Your task to perform on an android device: turn on improve location accuracy Image 0: 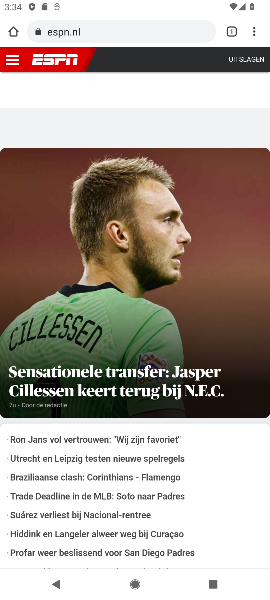
Step 0: press home button
Your task to perform on an android device: turn on improve location accuracy Image 1: 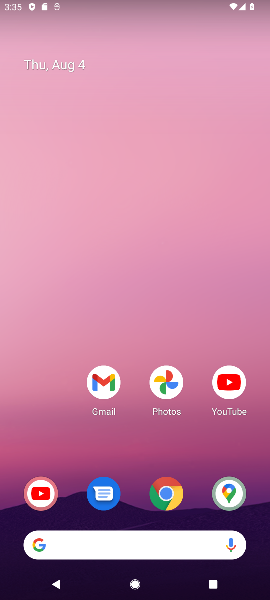
Step 1: drag from (107, 527) to (86, 241)
Your task to perform on an android device: turn on improve location accuracy Image 2: 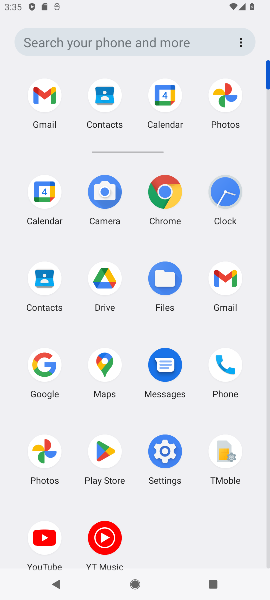
Step 2: click (171, 451)
Your task to perform on an android device: turn on improve location accuracy Image 3: 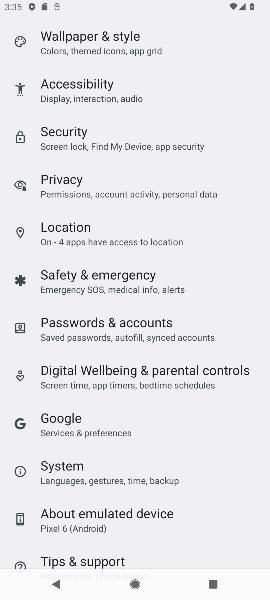
Step 3: click (50, 242)
Your task to perform on an android device: turn on improve location accuracy Image 4: 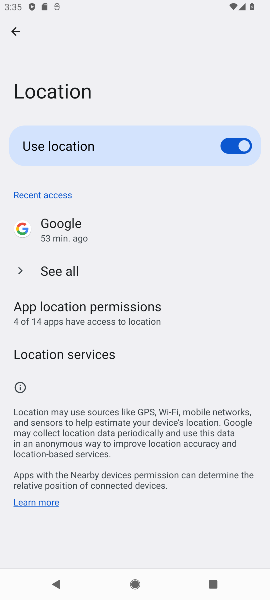
Step 4: click (48, 353)
Your task to perform on an android device: turn on improve location accuracy Image 5: 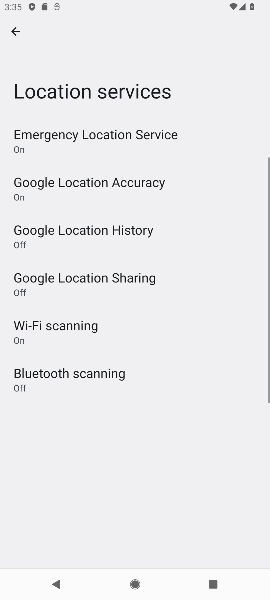
Step 5: click (19, 199)
Your task to perform on an android device: turn on improve location accuracy Image 6: 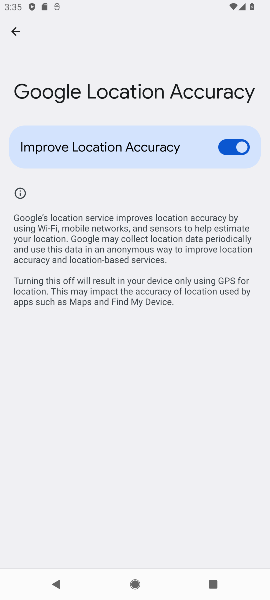
Step 6: task complete